Your task to perform on an android device: allow cookies in the chrome app Image 0: 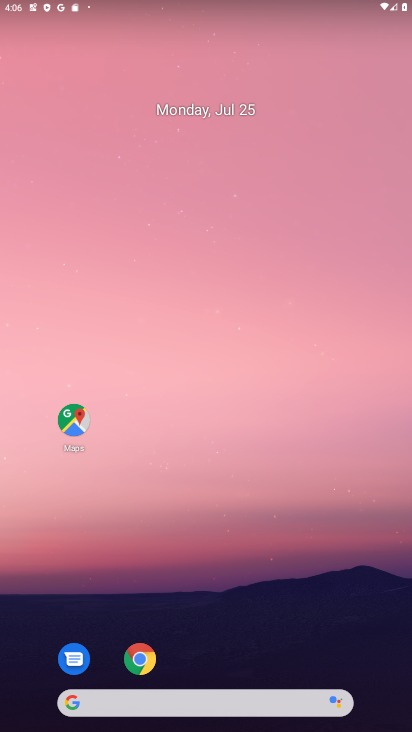
Step 0: click (143, 658)
Your task to perform on an android device: allow cookies in the chrome app Image 1: 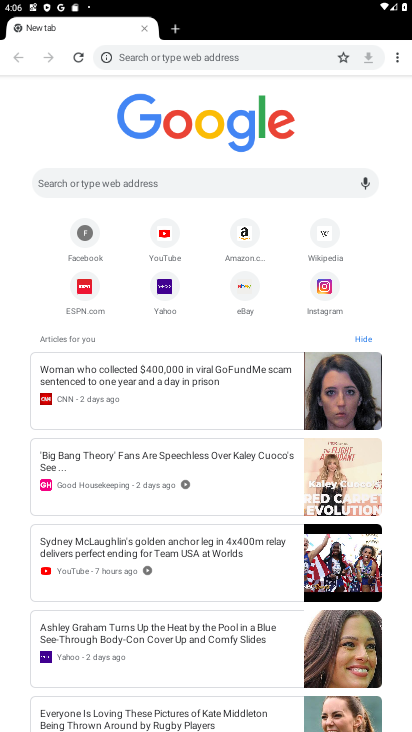
Step 1: click (398, 61)
Your task to perform on an android device: allow cookies in the chrome app Image 2: 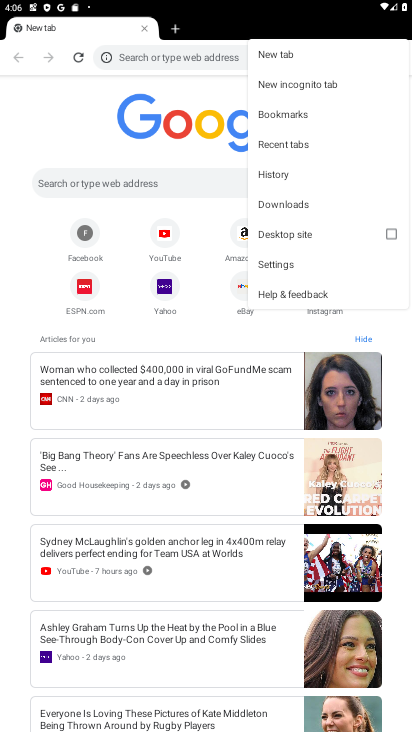
Step 2: click (279, 264)
Your task to perform on an android device: allow cookies in the chrome app Image 3: 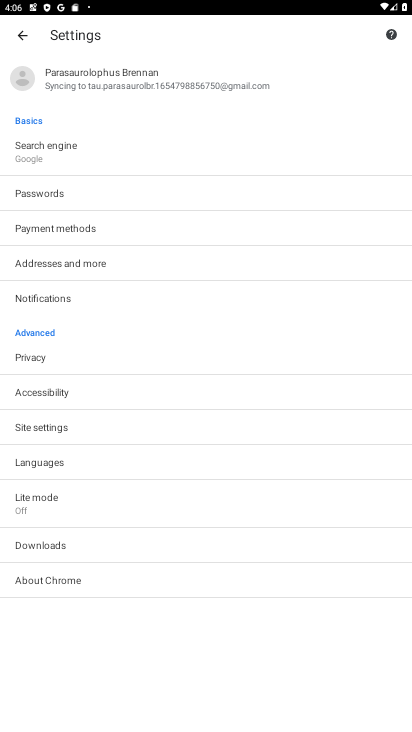
Step 3: click (40, 426)
Your task to perform on an android device: allow cookies in the chrome app Image 4: 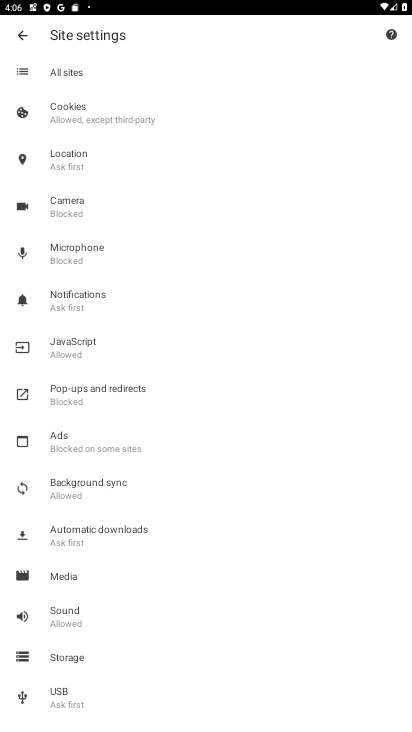
Step 4: click (72, 112)
Your task to perform on an android device: allow cookies in the chrome app Image 5: 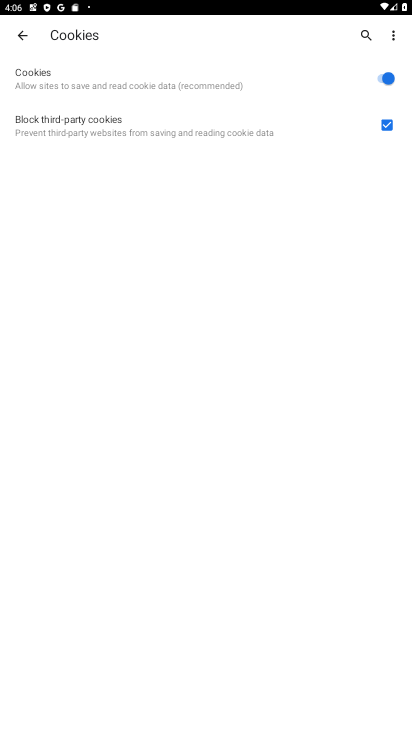
Step 5: task complete